Your task to perform on an android device: Search for logitech g502 on ebay, select the first entry, add it to the cart, then select checkout. Image 0: 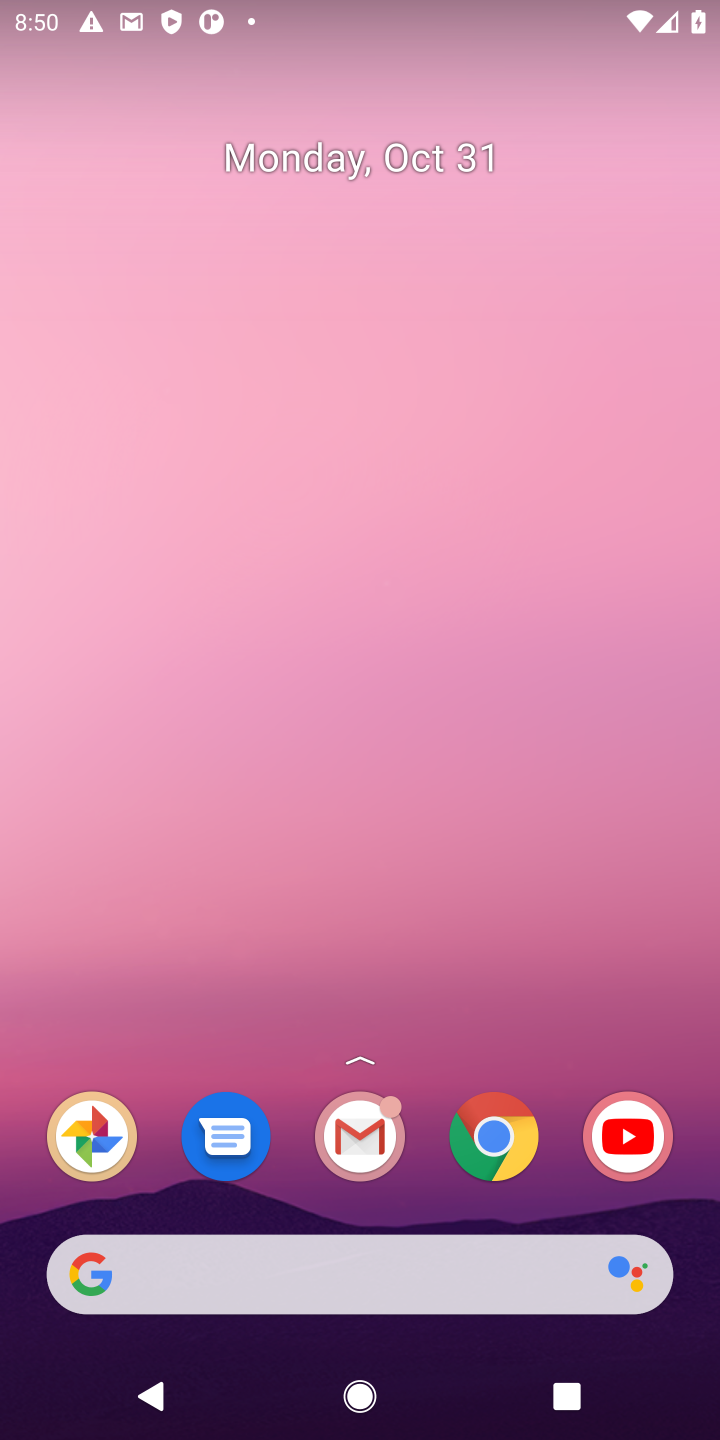
Step 0: click (99, 1275)
Your task to perform on an android device: Search for logitech g502 on ebay, select the first entry, add it to the cart, then select checkout. Image 1: 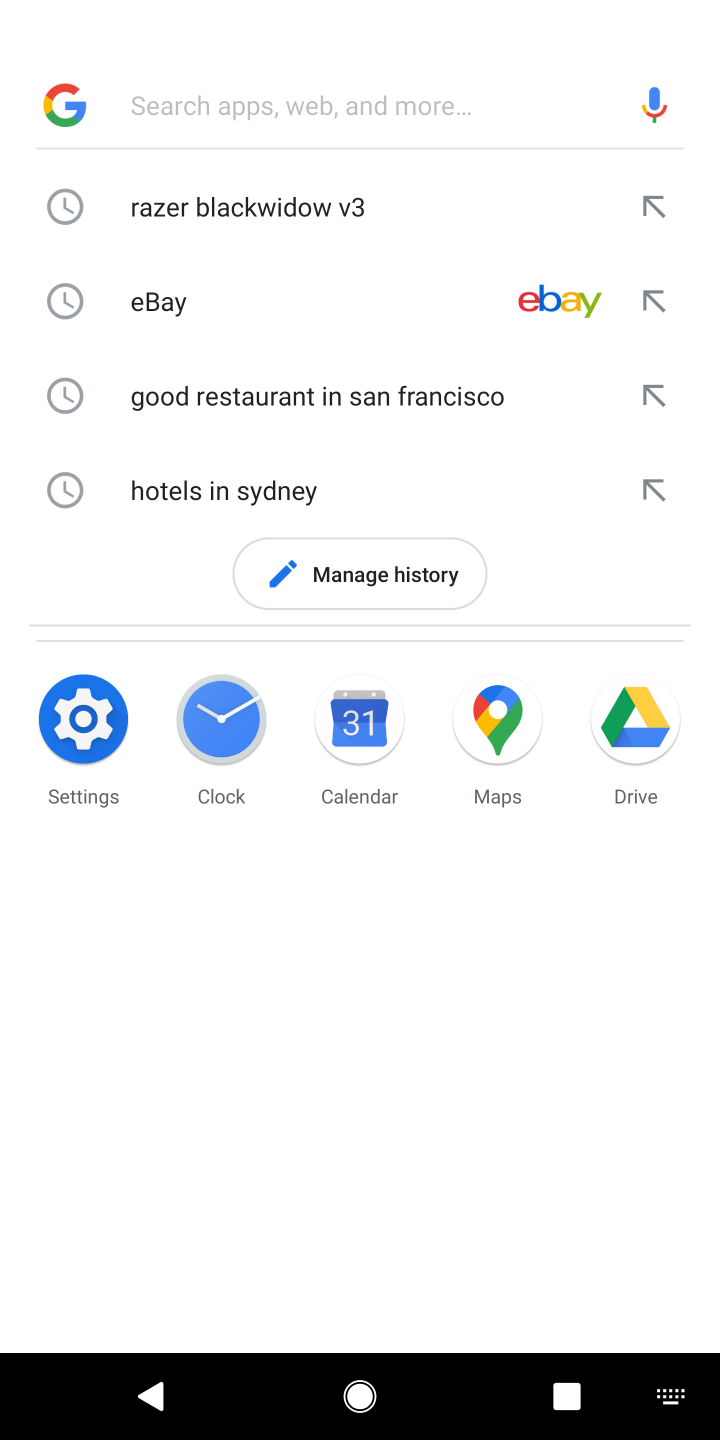
Step 1: type "ebay"
Your task to perform on an android device: Search for logitech g502 on ebay, select the first entry, add it to the cart, then select checkout. Image 2: 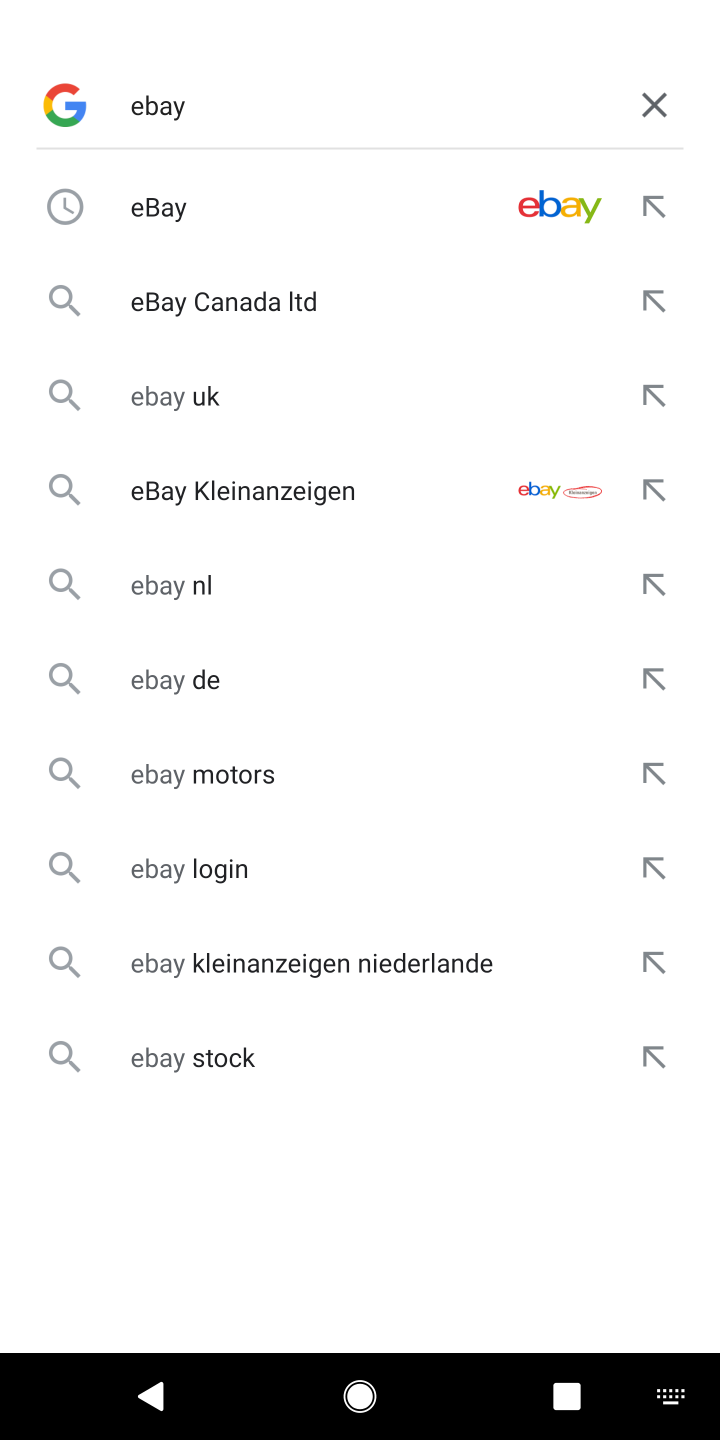
Step 2: click (180, 202)
Your task to perform on an android device: Search for logitech g502 on ebay, select the first entry, add it to the cart, then select checkout. Image 3: 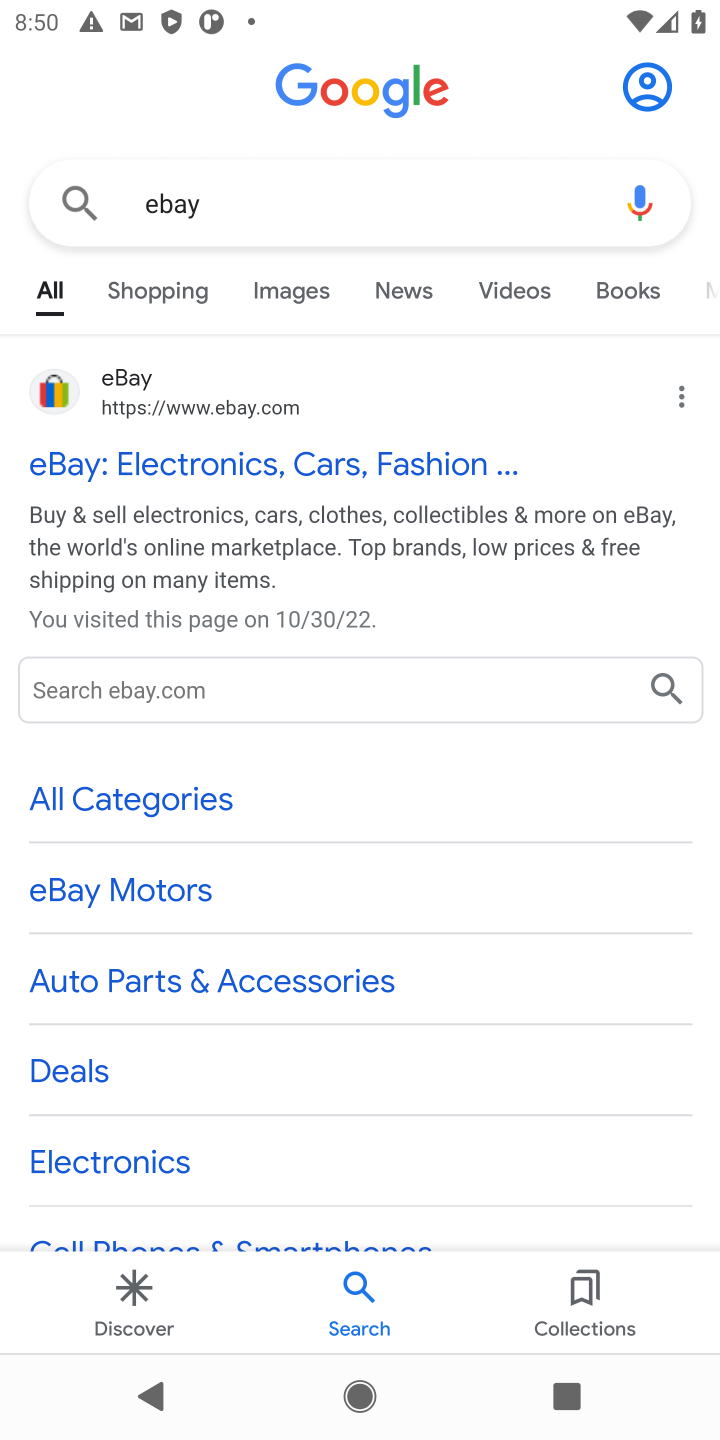
Step 3: click (258, 462)
Your task to perform on an android device: Search for logitech g502 on ebay, select the first entry, add it to the cart, then select checkout. Image 4: 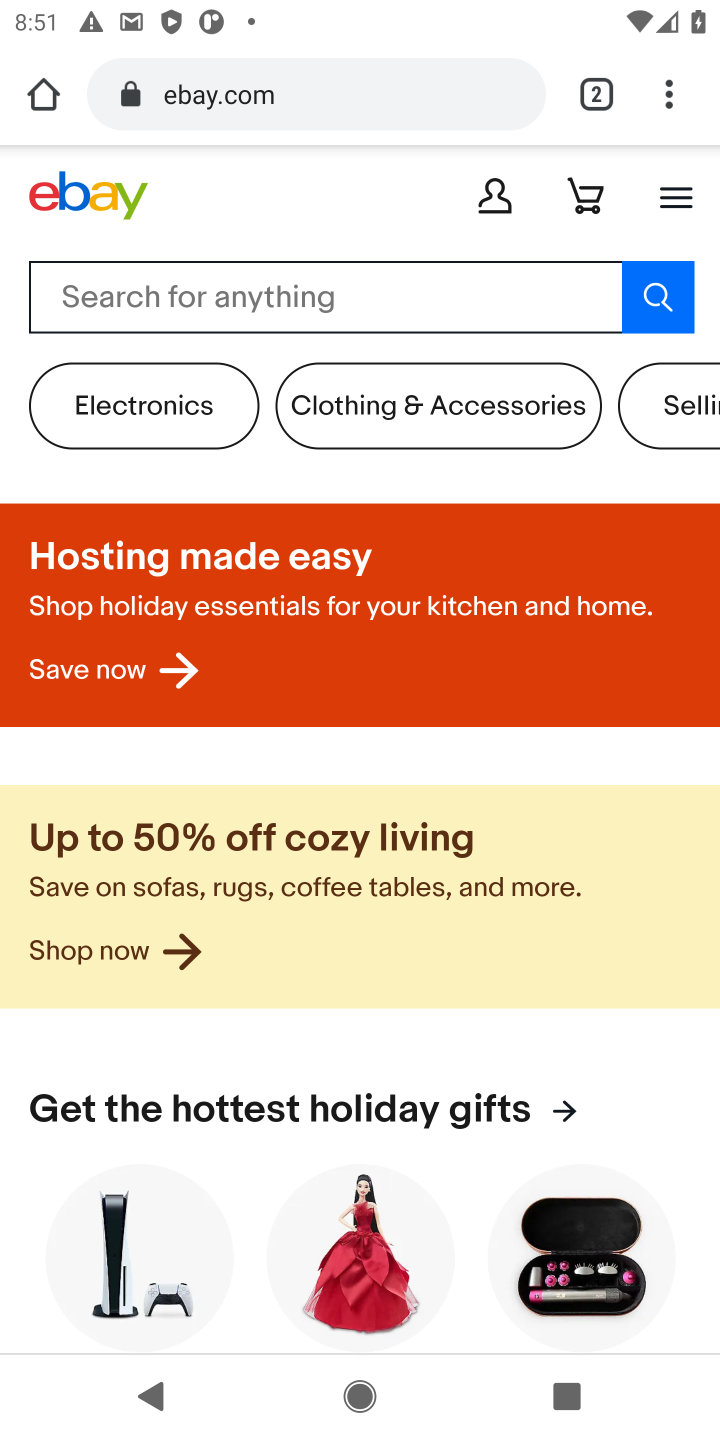
Step 4: click (377, 308)
Your task to perform on an android device: Search for logitech g502 on ebay, select the first entry, add it to the cart, then select checkout. Image 5: 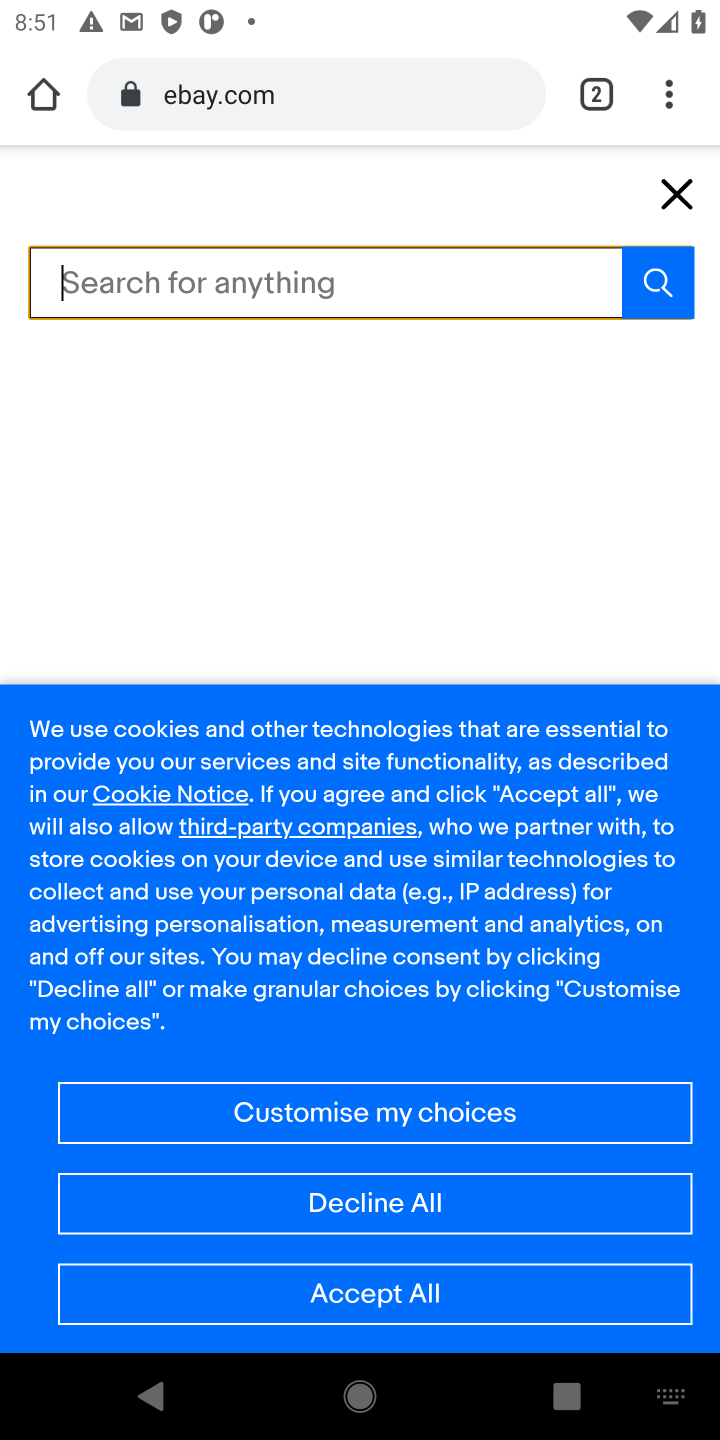
Step 5: type "logitech g502"
Your task to perform on an android device: Search for logitech g502 on ebay, select the first entry, add it to the cart, then select checkout. Image 6: 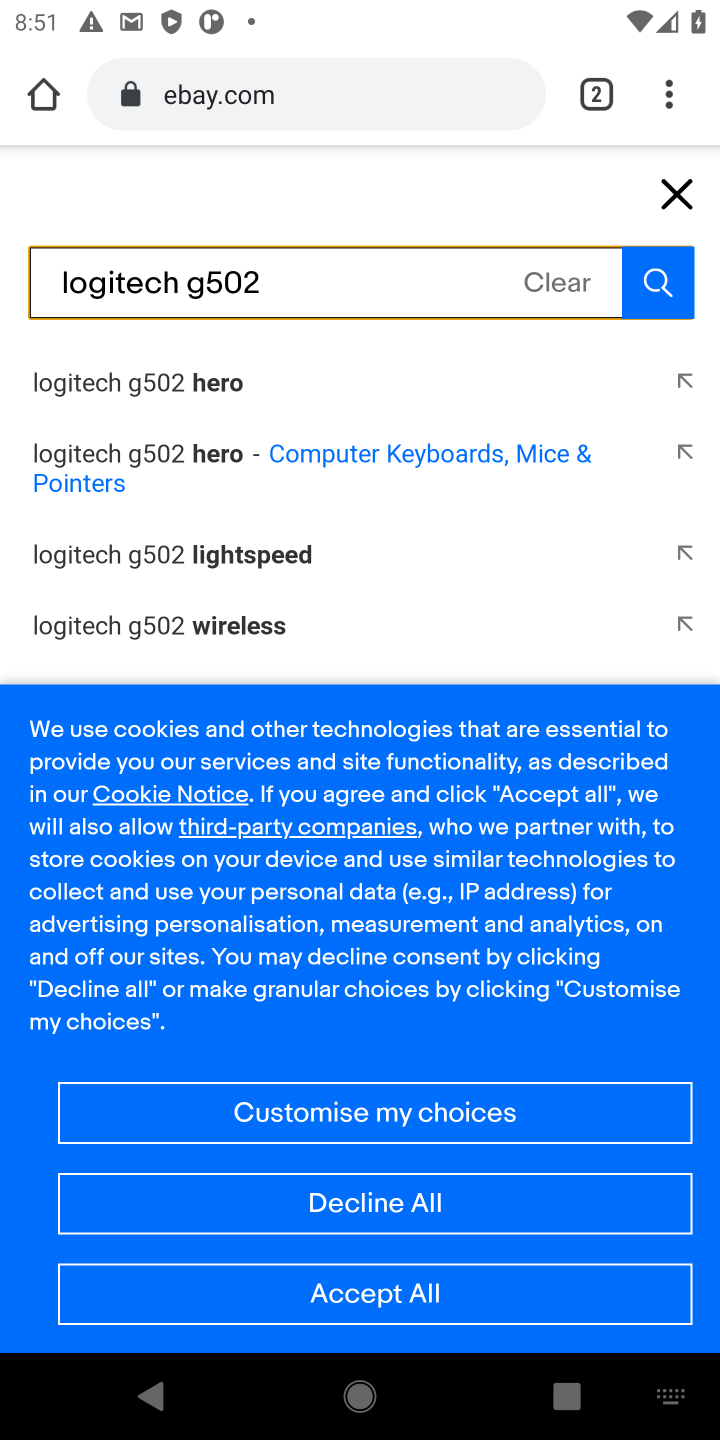
Step 6: click (150, 394)
Your task to perform on an android device: Search for logitech g502 on ebay, select the first entry, add it to the cart, then select checkout. Image 7: 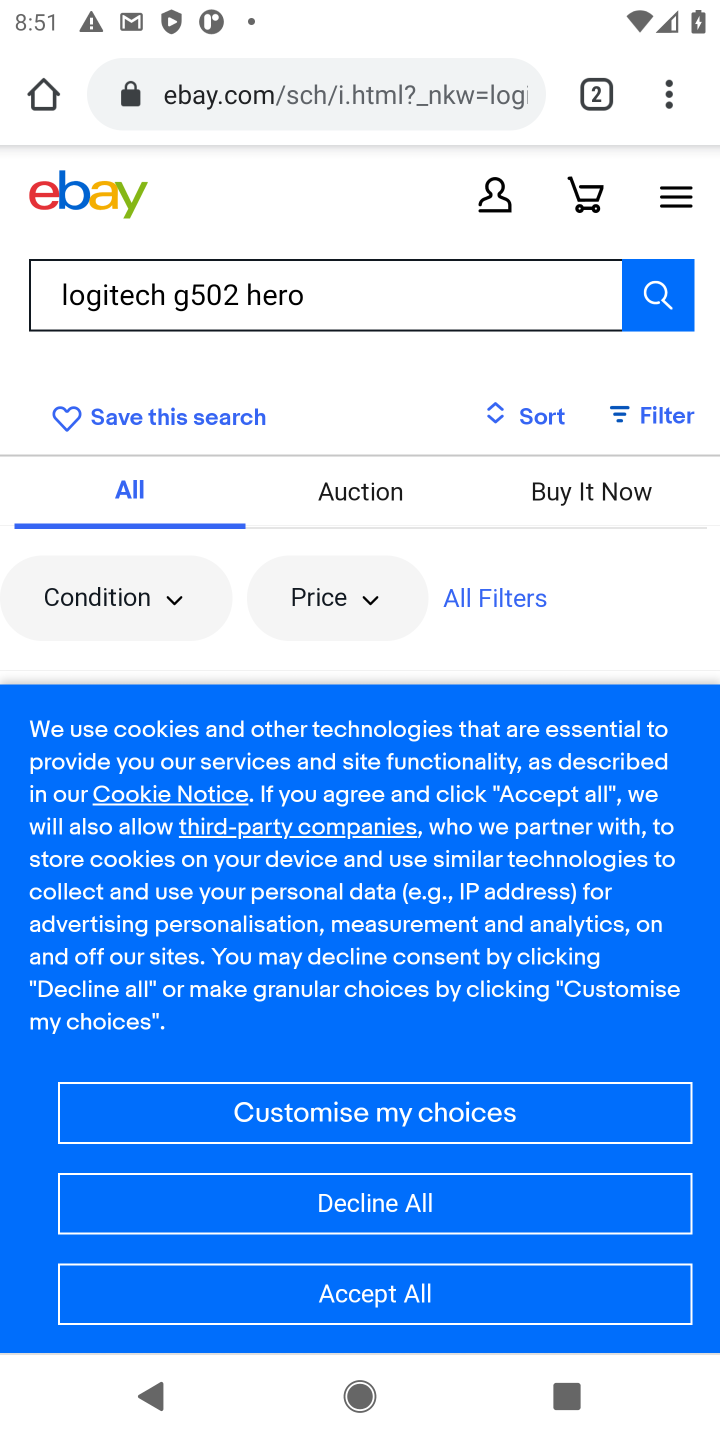
Step 7: click (370, 1300)
Your task to perform on an android device: Search for logitech g502 on ebay, select the first entry, add it to the cart, then select checkout. Image 8: 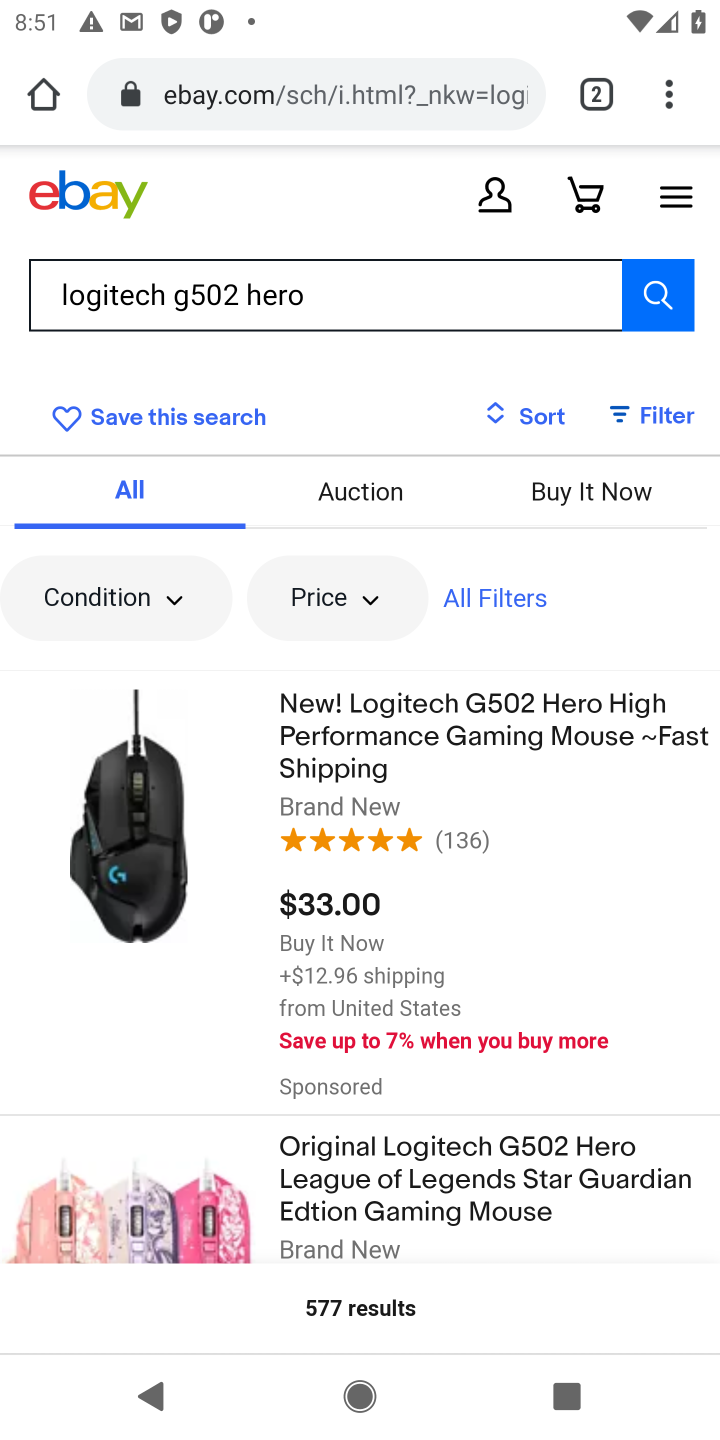
Step 8: click (434, 726)
Your task to perform on an android device: Search for logitech g502 on ebay, select the first entry, add it to the cart, then select checkout. Image 9: 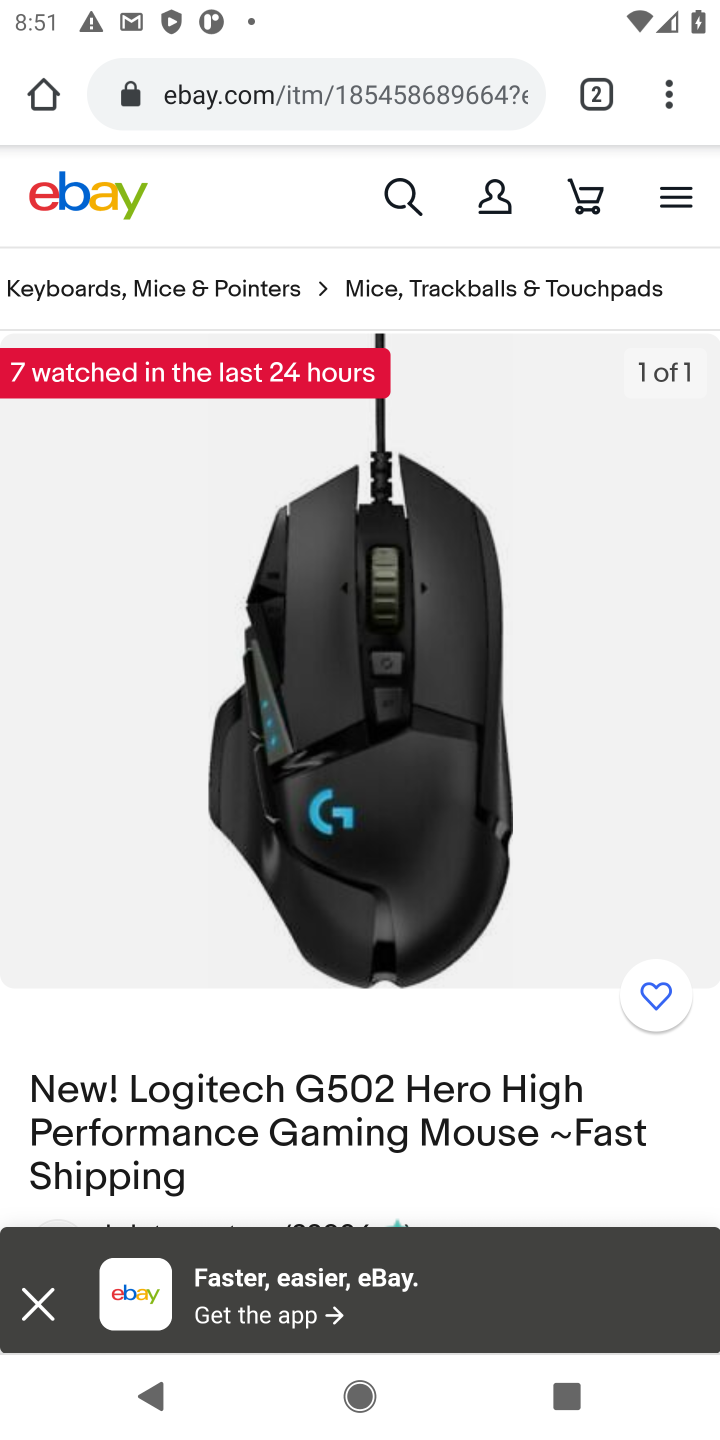
Step 9: drag from (434, 1142) to (376, 463)
Your task to perform on an android device: Search for logitech g502 on ebay, select the first entry, add it to the cart, then select checkout. Image 10: 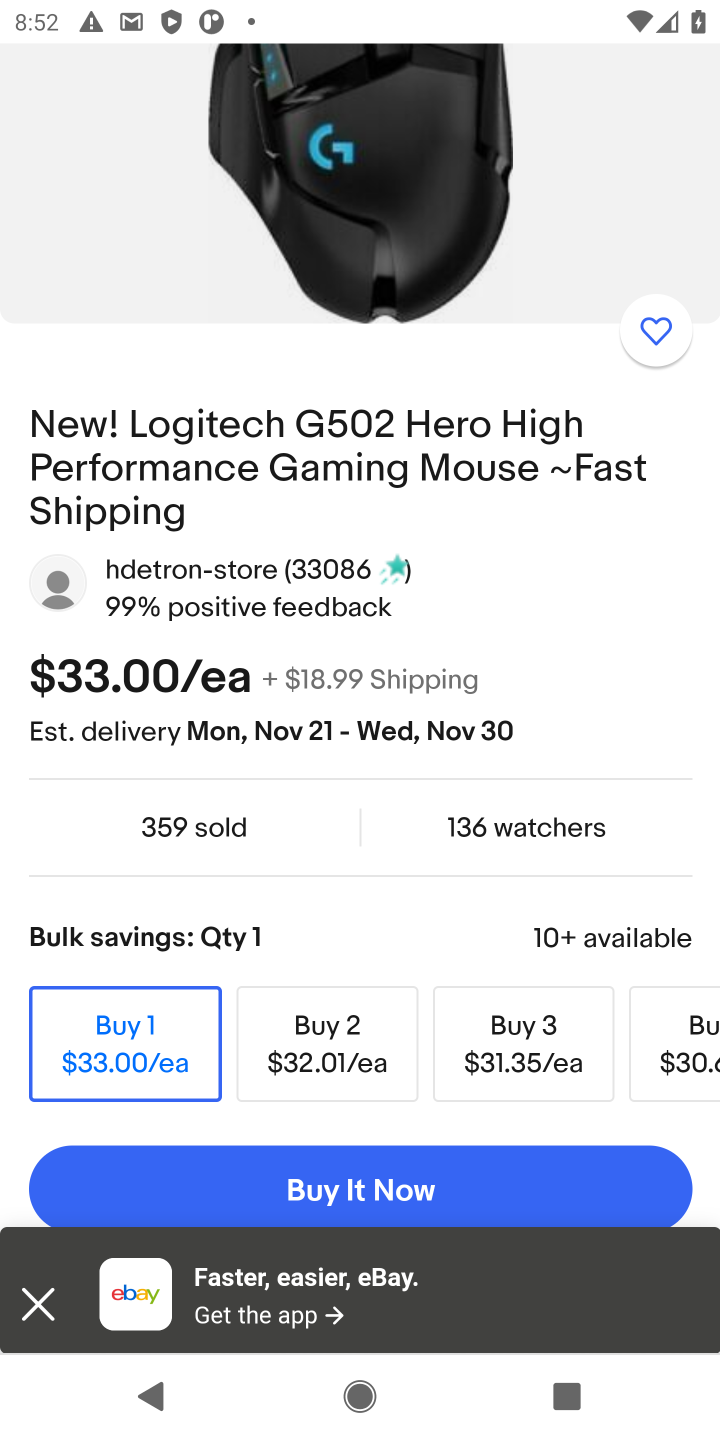
Step 10: drag from (317, 1175) to (343, 476)
Your task to perform on an android device: Search for logitech g502 on ebay, select the first entry, add it to the cart, then select checkout. Image 11: 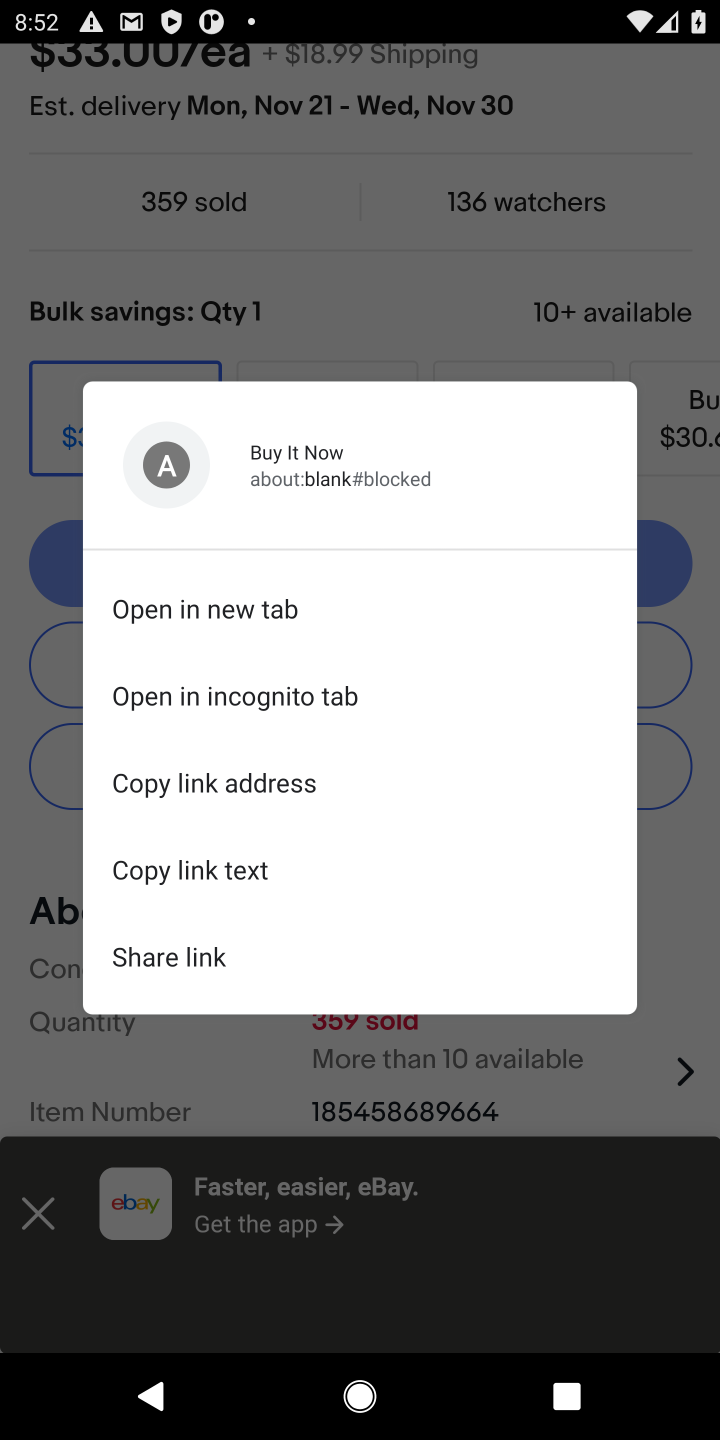
Step 11: click (423, 300)
Your task to perform on an android device: Search for logitech g502 on ebay, select the first entry, add it to the cart, then select checkout. Image 12: 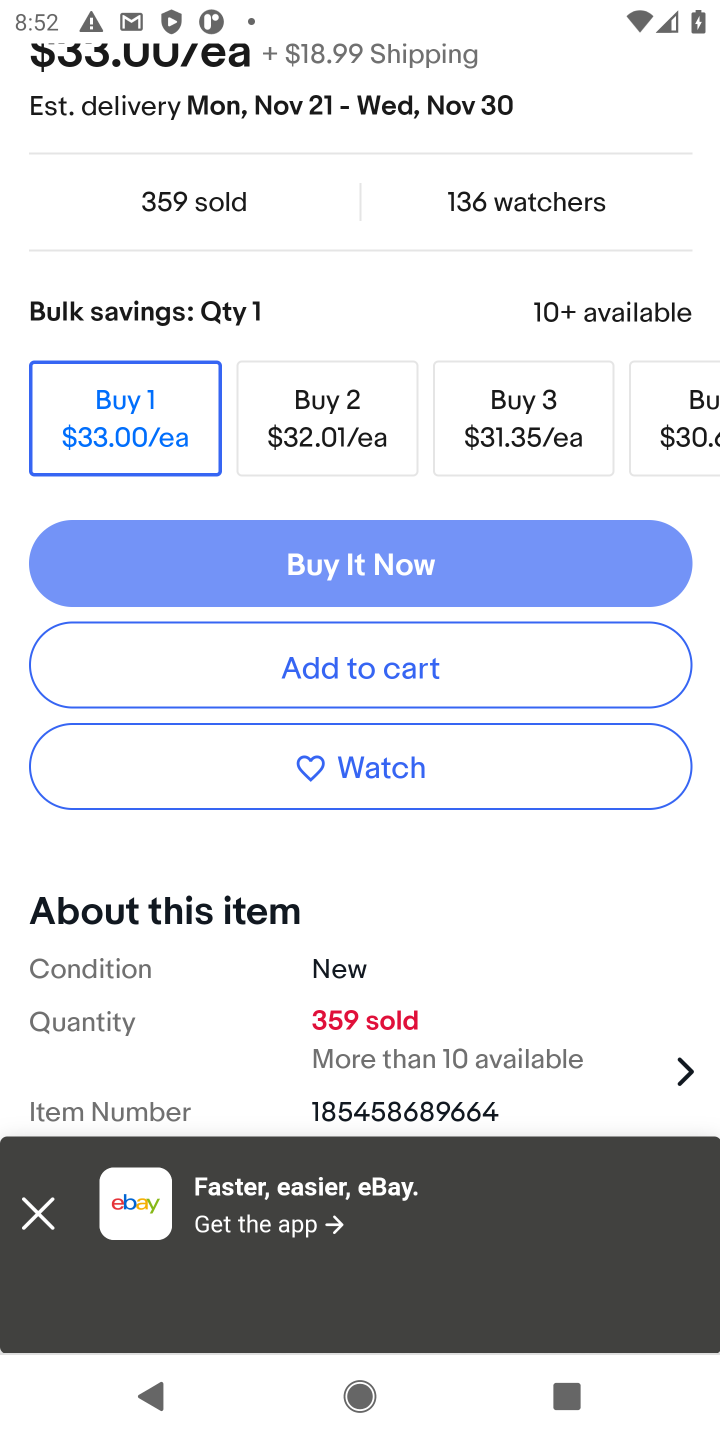
Step 12: click (359, 676)
Your task to perform on an android device: Search for logitech g502 on ebay, select the first entry, add it to the cart, then select checkout. Image 13: 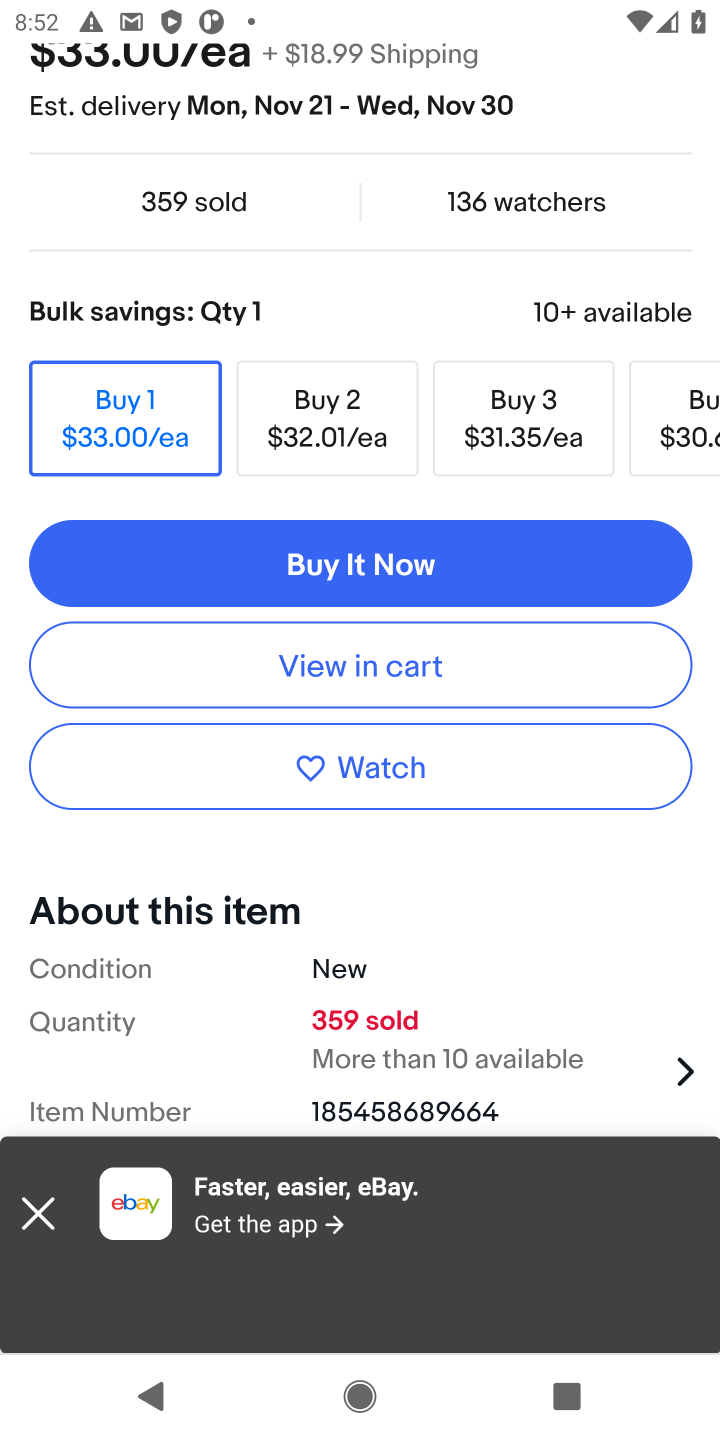
Step 13: click (359, 676)
Your task to perform on an android device: Search for logitech g502 on ebay, select the first entry, add it to the cart, then select checkout. Image 14: 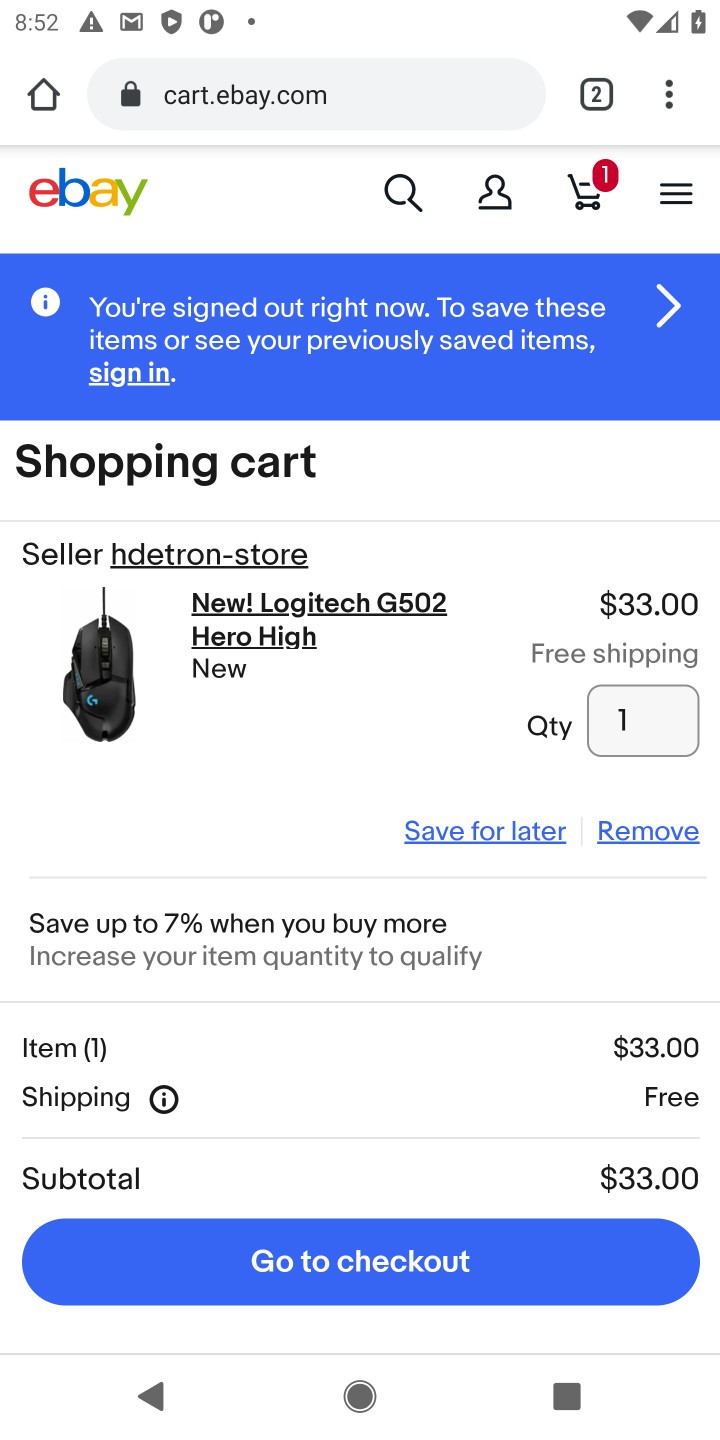
Step 14: click (357, 1265)
Your task to perform on an android device: Search for logitech g502 on ebay, select the first entry, add it to the cart, then select checkout. Image 15: 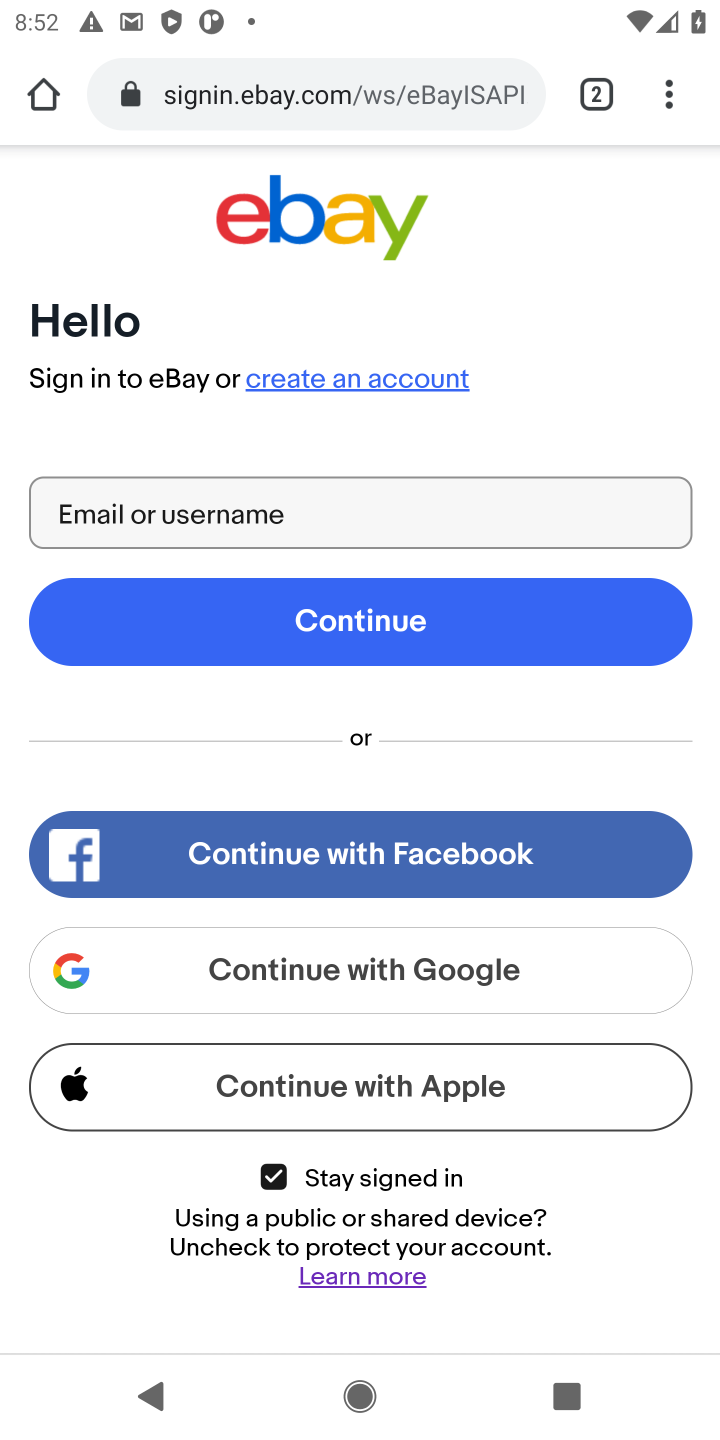
Step 15: task complete